Your task to perform on an android device: change the clock style Image 0: 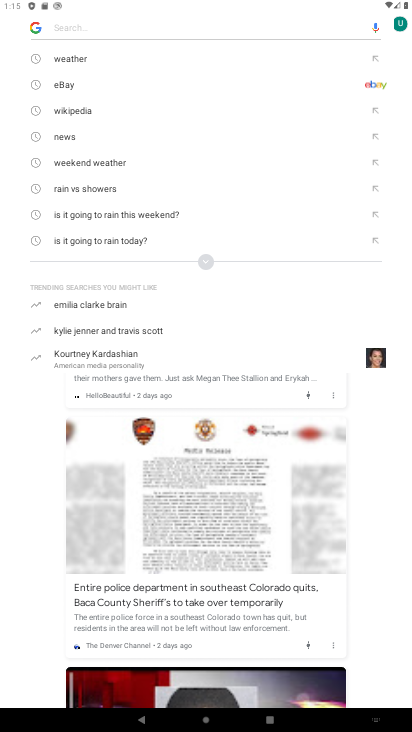
Step 0: press home button
Your task to perform on an android device: change the clock style Image 1: 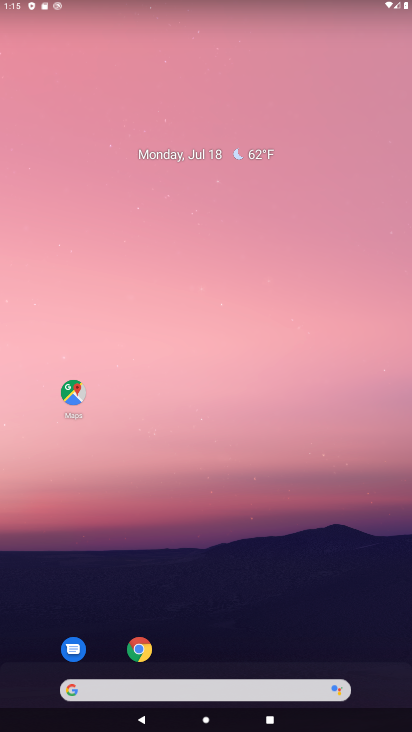
Step 1: drag from (267, 600) to (162, 0)
Your task to perform on an android device: change the clock style Image 2: 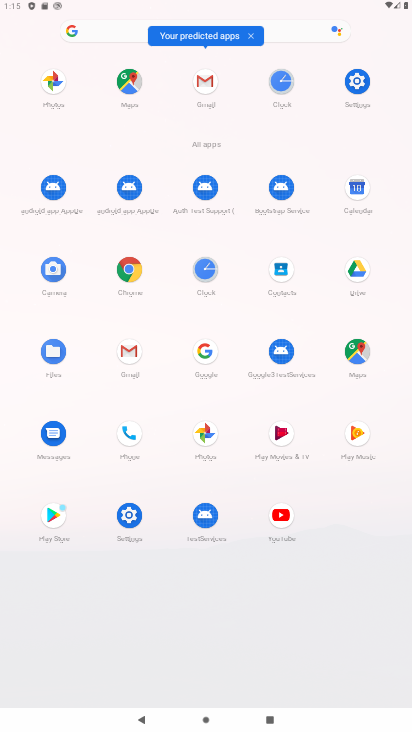
Step 2: click (212, 269)
Your task to perform on an android device: change the clock style Image 3: 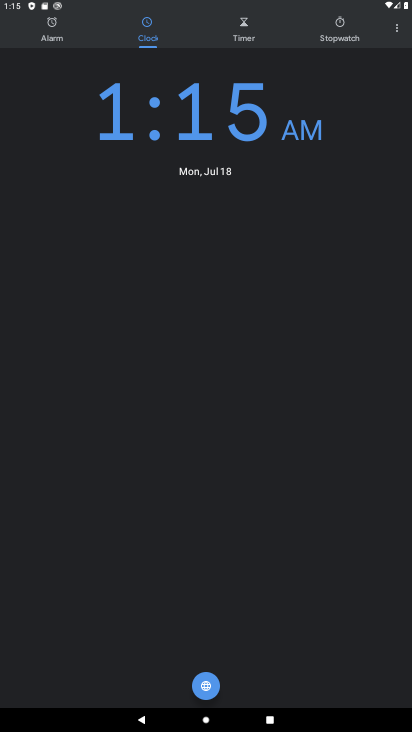
Step 3: click (402, 30)
Your task to perform on an android device: change the clock style Image 4: 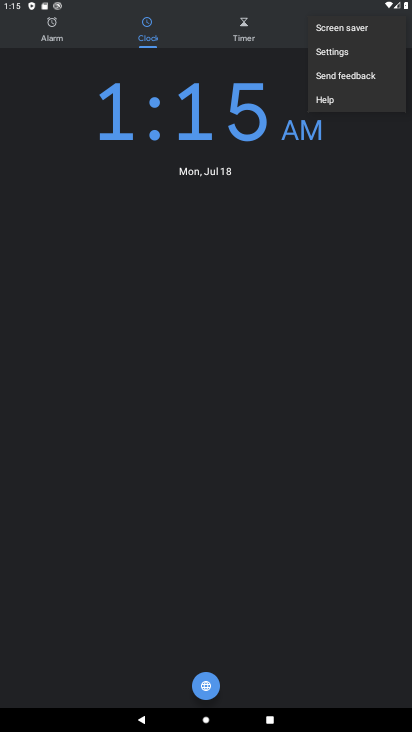
Step 4: click (326, 46)
Your task to perform on an android device: change the clock style Image 5: 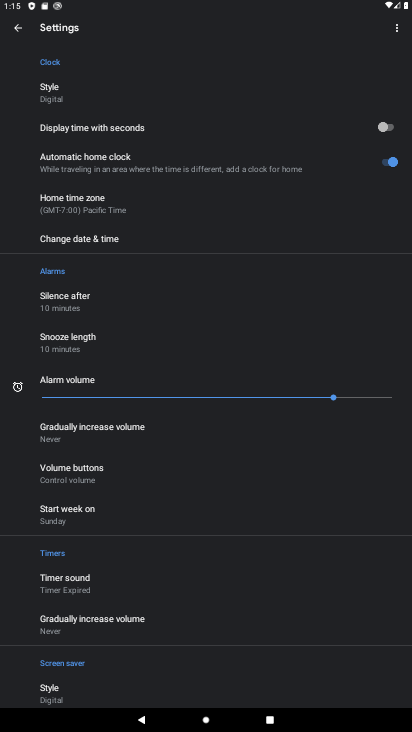
Step 5: click (82, 99)
Your task to perform on an android device: change the clock style Image 6: 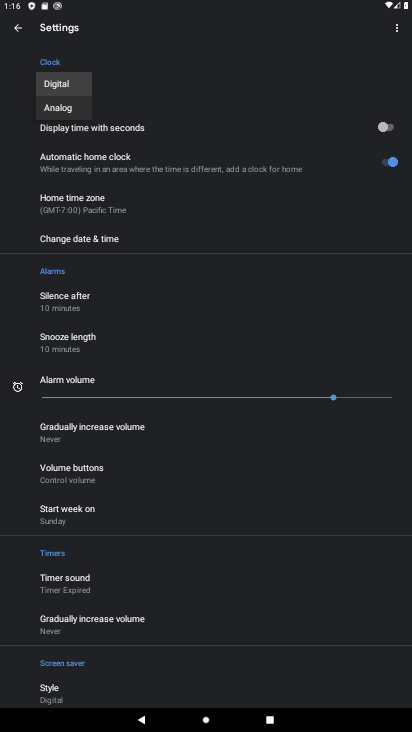
Step 6: click (65, 111)
Your task to perform on an android device: change the clock style Image 7: 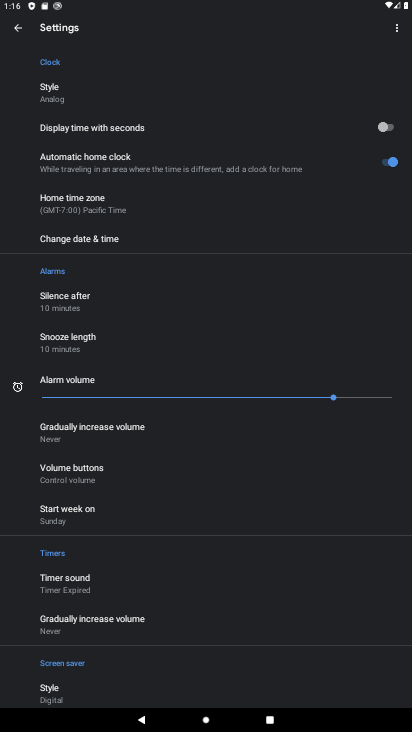
Step 7: task complete